Your task to perform on an android device: Open the Play Movies app and select the watchlist tab. Image 0: 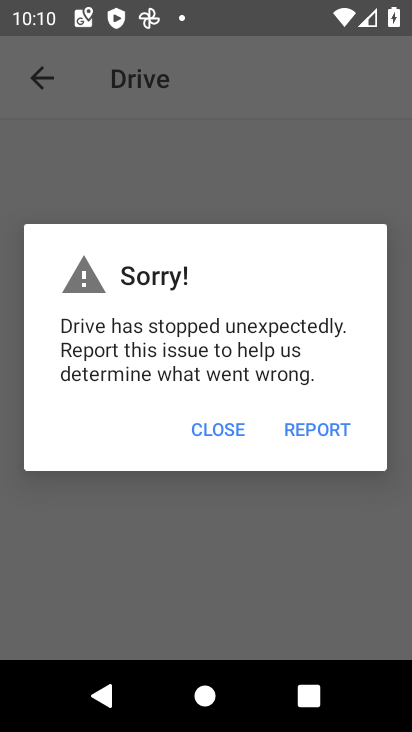
Step 0: press home button
Your task to perform on an android device: Open the Play Movies app and select the watchlist tab. Image 1: 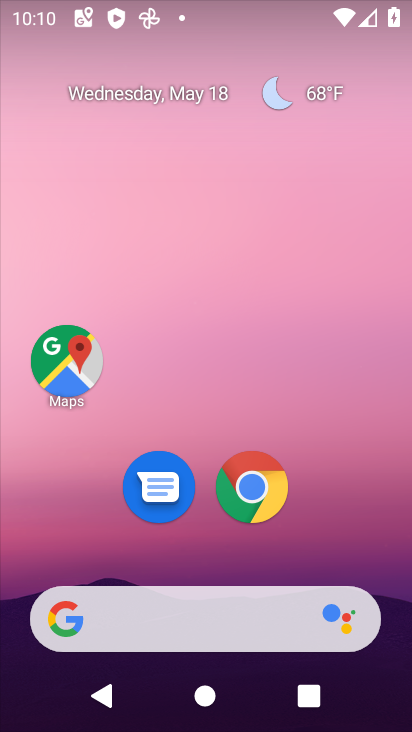
Step 1: drag from (379, 533) to (316, 134)
Your task to perform on an android device: Open the Play Movies app and select the watchlist tab. Image 2: 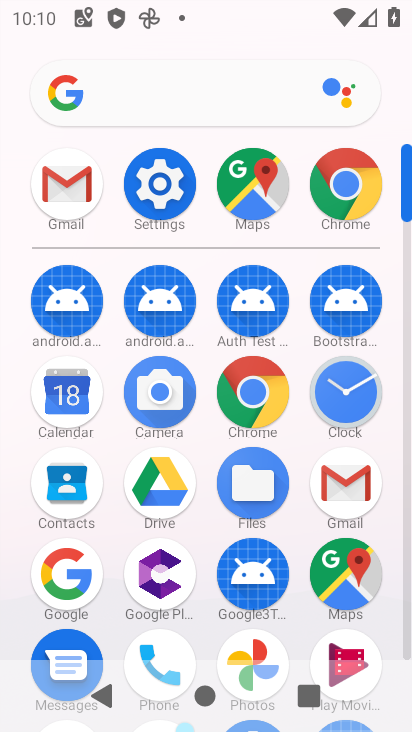
Step 2: click (344, 649)
Your task to perform on an android device: Open the Play Movies app and select the watchlist tab. Image 3: 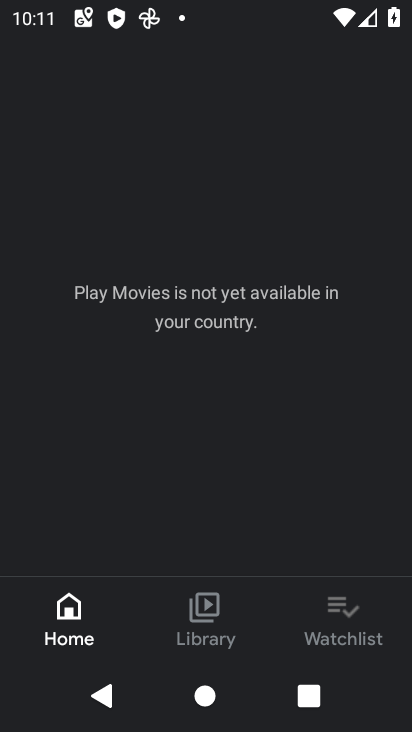
Step 3: click (339, 621)
Your task to perform on an android device: Open the Play Movies app and select the watchlist tab. Image 4: 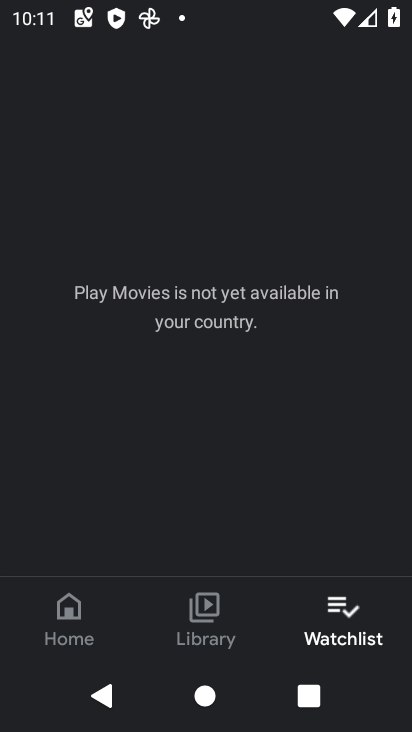
Step 4: task complete